Your task to perform on an android device: toggle improve location accuracy Image 0: 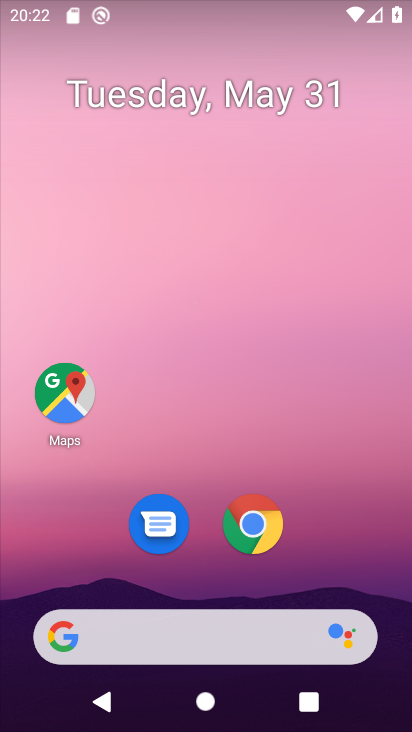
Step 0: drag from (214, 460) to (273, 1)
Your task to perform on an android device: toggle improve location accuracy Image 1: 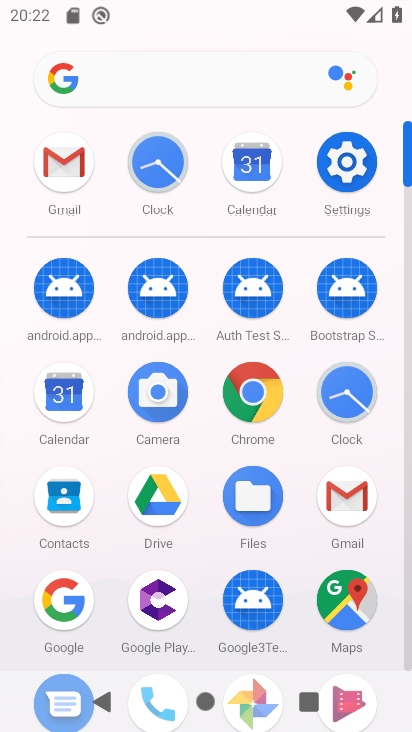
Step 1: click (348, 152)
Your task to perform on an android device: toggle improve location accuracy Image 2: 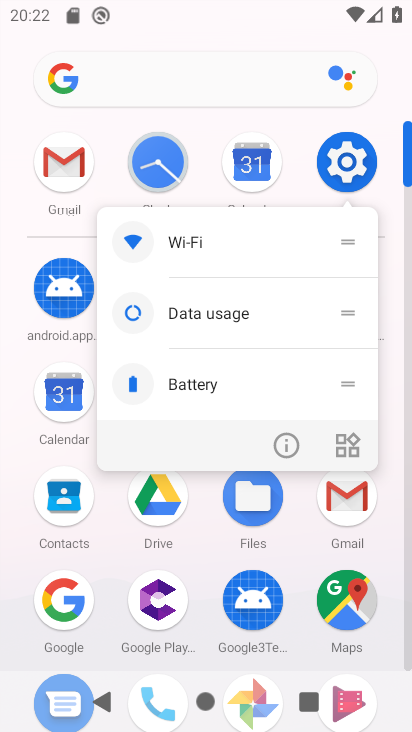
Step 2: click (348, 151)
Your task to perform on an android device: toggle improve location accuracy Image 3: 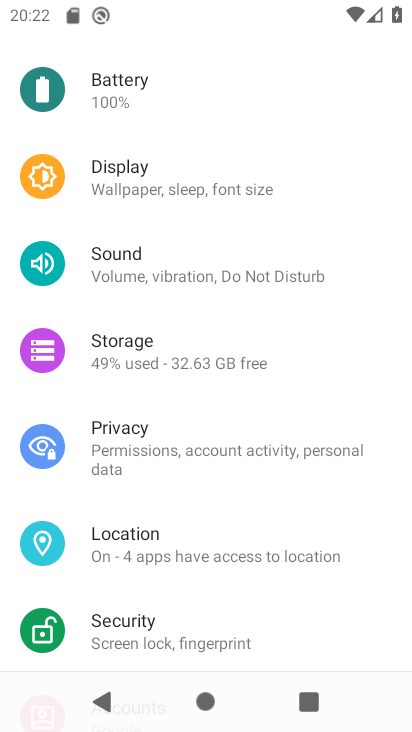
Step 3: click (170, 537)
Your task to perform on an android device: toggle improve location accuracy Image 4: 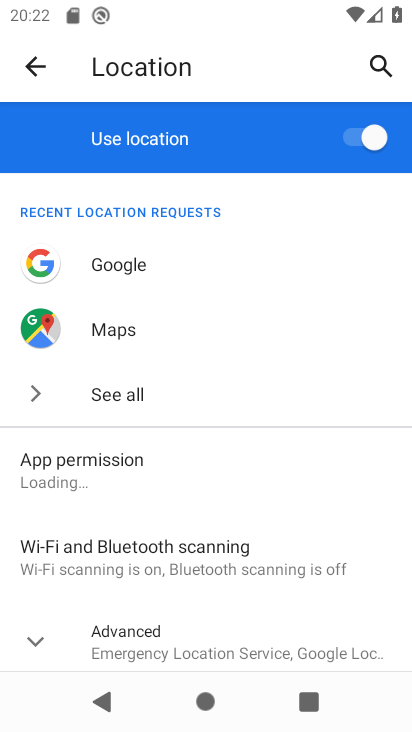
Step 4: drag from (224, 495) to (268, 309)
Your task to perform on an android device: toggle improve location accuracy Image 5: 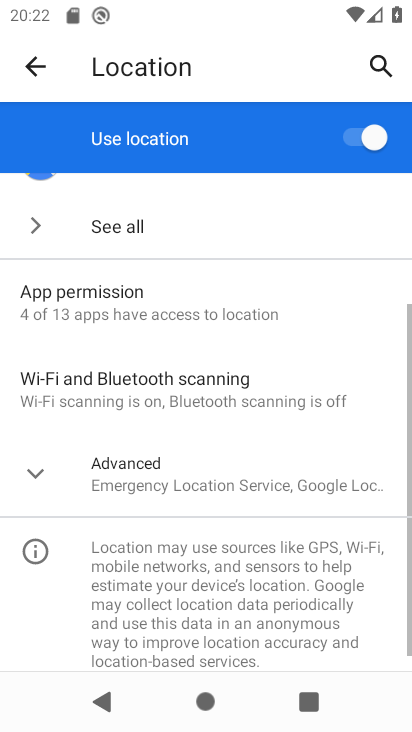
Step 5: click (38, 473)
Your task to perform on an android device: toggle improve location accuracy Image 6: 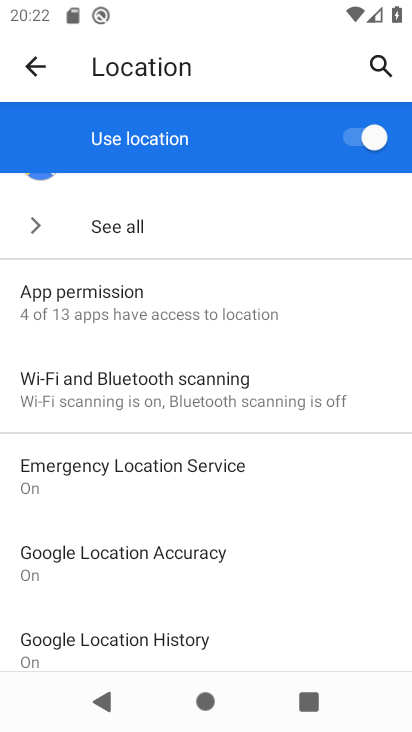
Step 6: click (124, 559)
Your task to perform on an android device: toggle improve location accuracy Image 7: 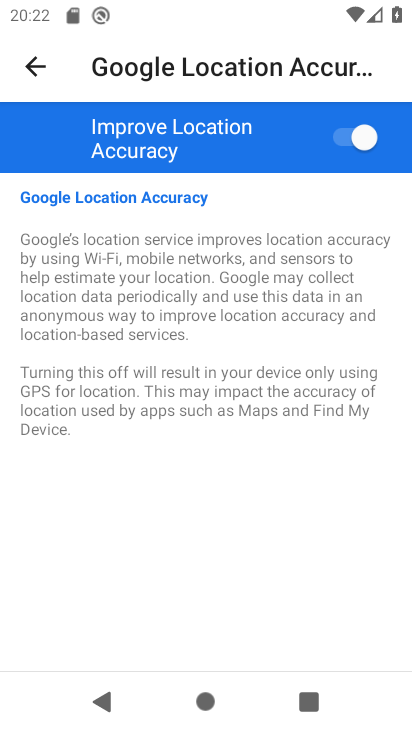
Step 7: click (357, 143)
Your task to perform on an android device: toggle improve location accuracy Image 8: 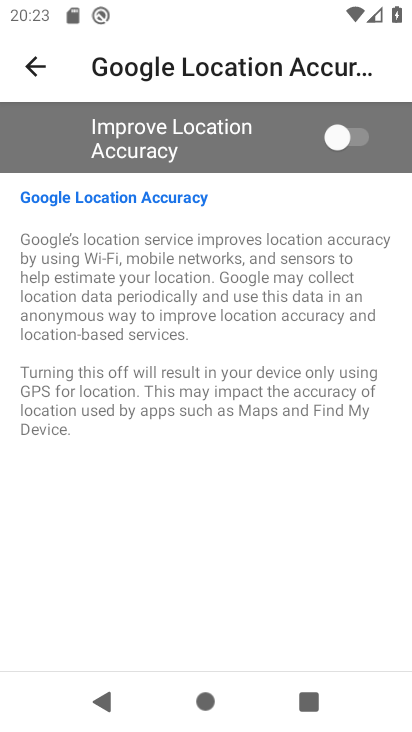
Step 8: task complete